Your task to perform on an android device: toggle location history Image 0: 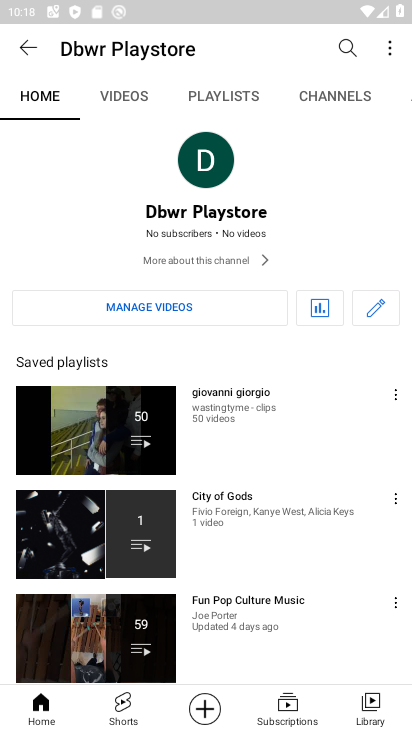
Step 0: press home button
Your task to perform on an android device: toggle location history Image 1: 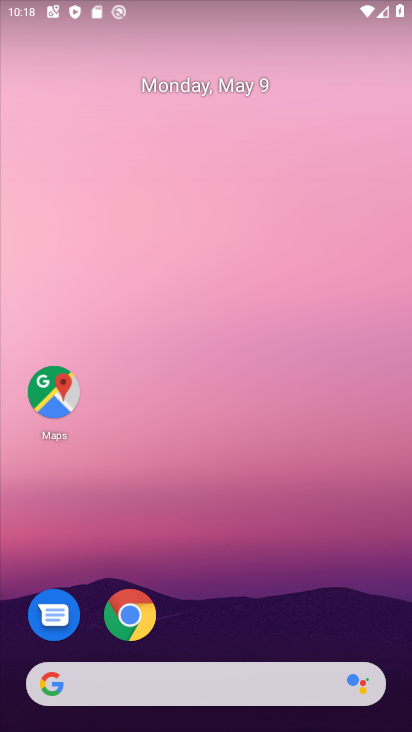
Step 1: drag from (168, 640) to (200, 171)
Your task to perform on an android device: toggle location history Image 2: 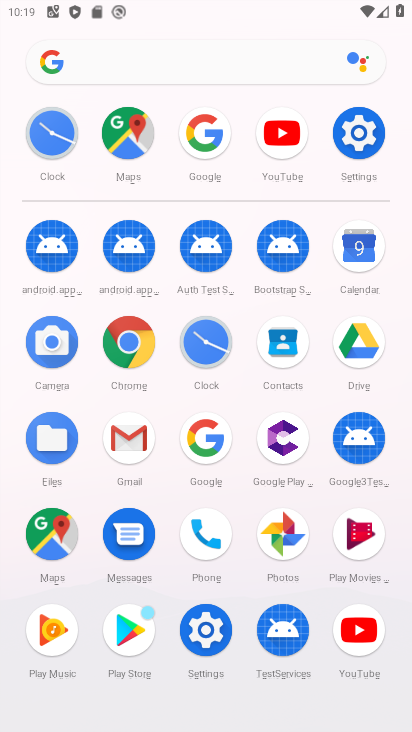
Step 2: click (206, 628)
Your task to perform on an android device: toggle location history Image 3: 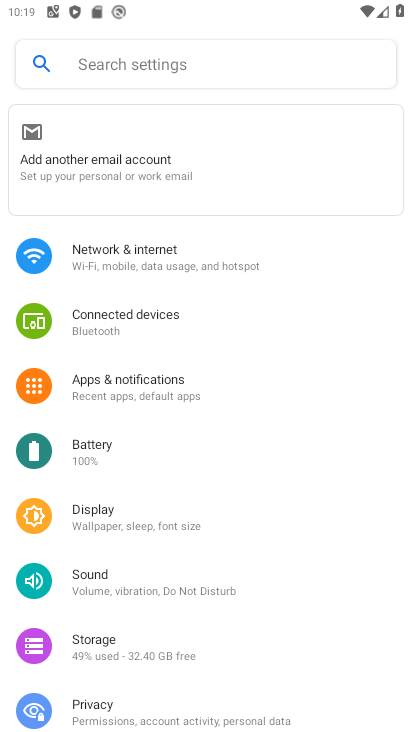
Step 3: drag from (135, 465) to (155, 207)
Your task to perform on an android device: toggle location history Image 4: 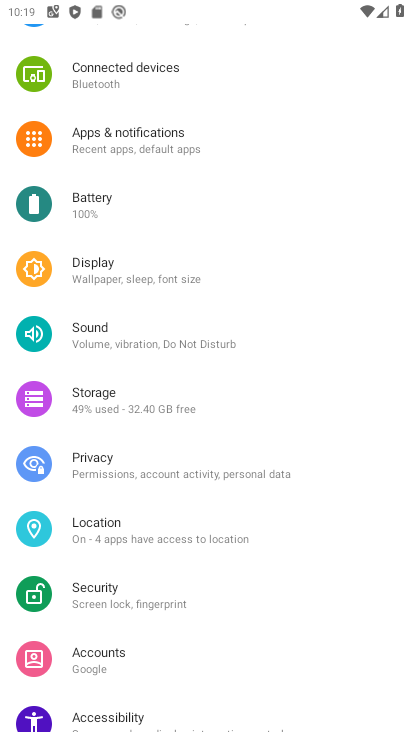
Step 4: click (125, 526)
Your task to perform on an android device: toggle location history Image 5: 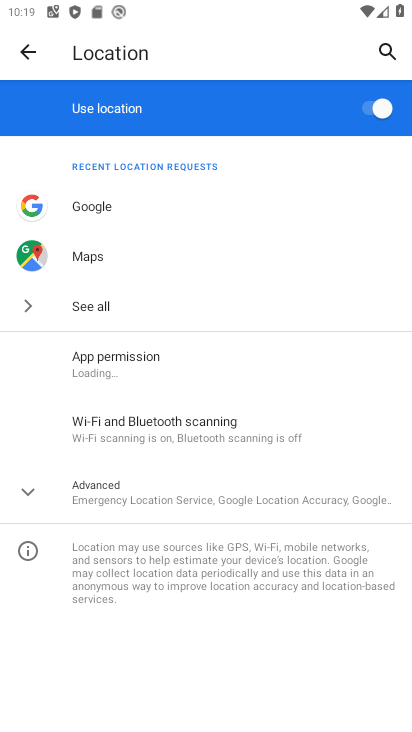
Step 5: click (365, 104)
Your task to perform on an android device: toggle location history Image 6: 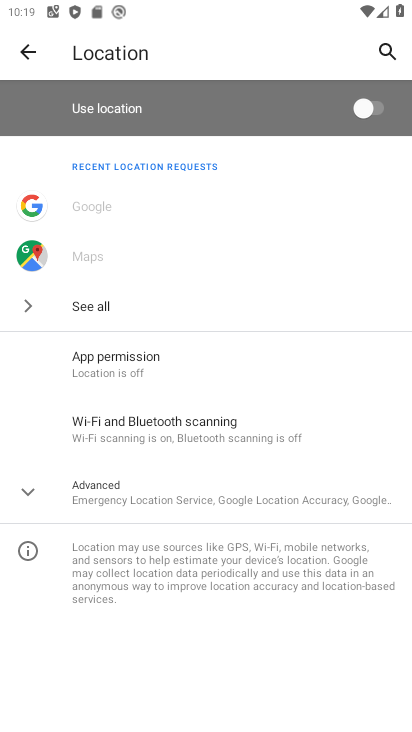
Step 6: task complete